Your task to perform on an android device: uninstall "Viber Messenger" Image 0: 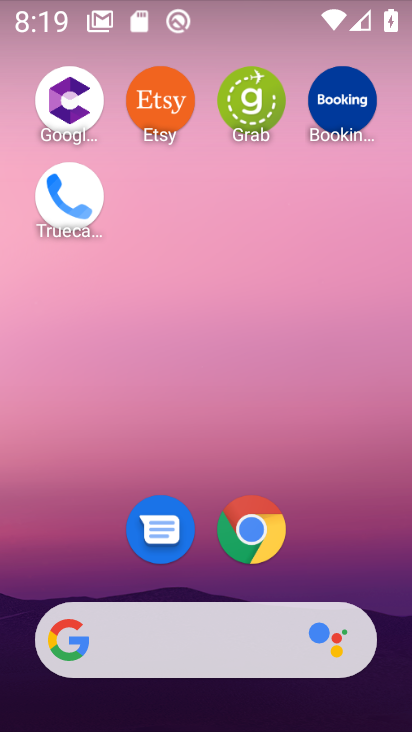
Step 0: drag from (204, 725) to (217, 199)
Your task to perform on an android device: uninstall "Viber Messenger" Image 1: 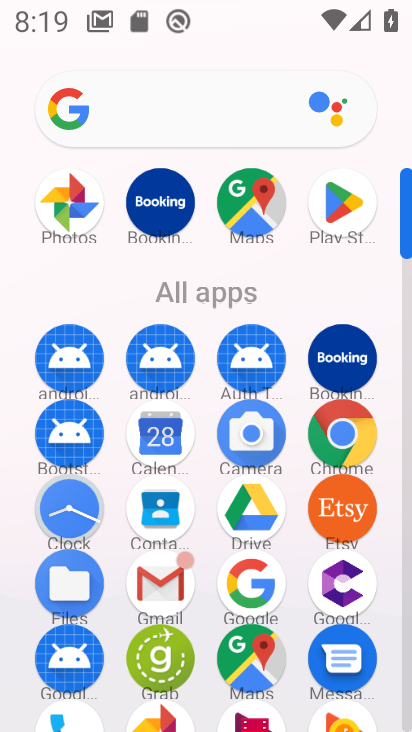
Step 1: click (348, 200)
Your task to perform on an android device: uninstall "Viber Messenger" Image 2: 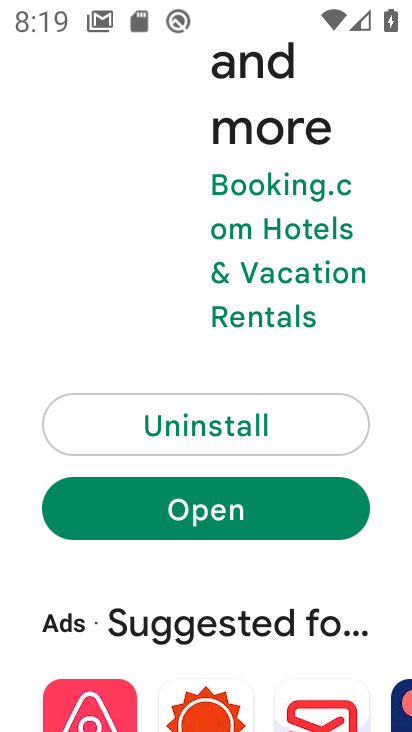
Step 2: drag from (156, 119) to (121, 386)
Your task to perform on an android device: uninstall "Viber Messenger" Image 3: 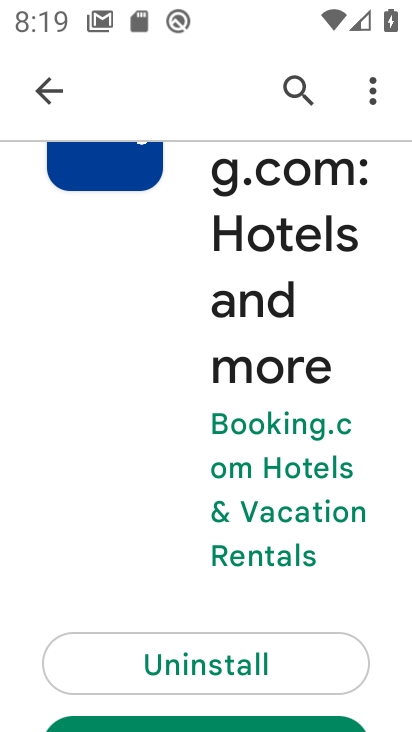
Step 3: click (299, 87)
Your task to perform on an android device: uninstall "Viber Messenger" Image 4: 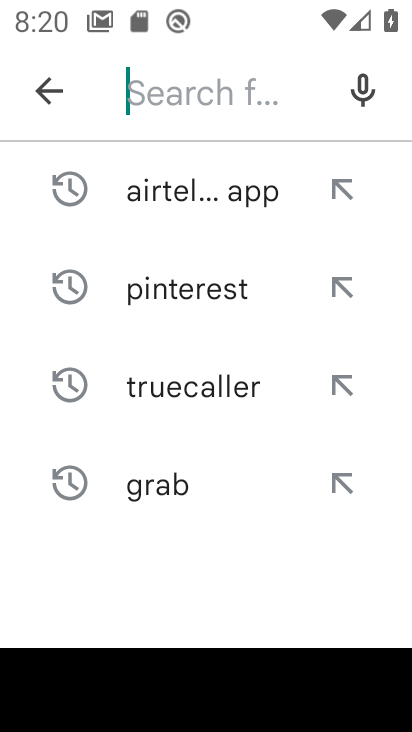
Step 4: type "Viber Messenger"
Your task to perform on an android device: uninstall "Viber Messenger" Image 5: 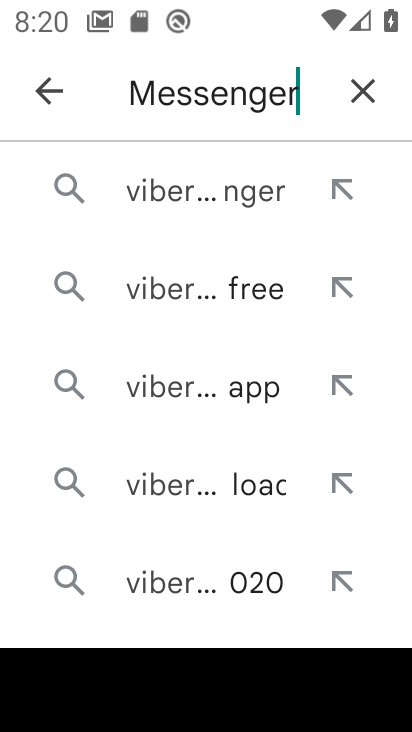
Step 5: click (165, 196)
Your task to perform on an android device: uninstall "Viber Messenger" Image 6: 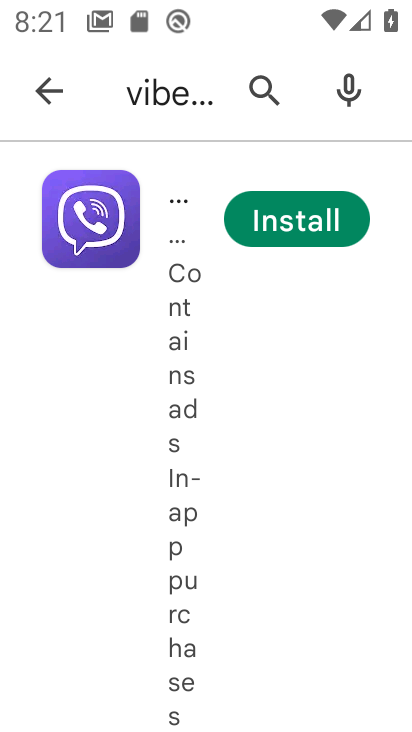
Step 6: task complete